Your task to perform on an android device: turn on airplane mode Image 0: 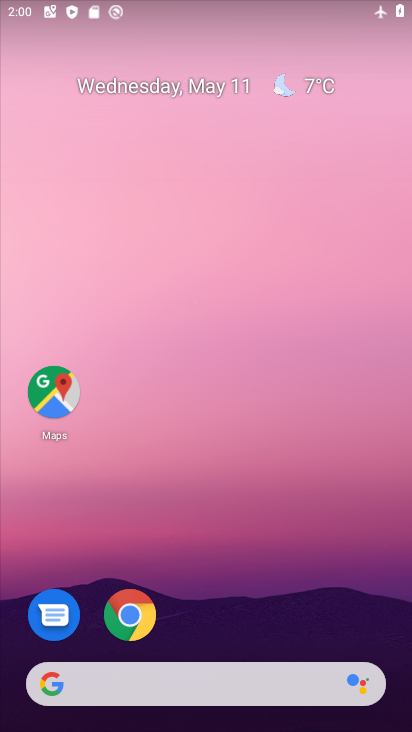
Step 0: drag from (301, 20) to (297, 581)
Your task to perform on an android device: turn on airplane mode Image 1: 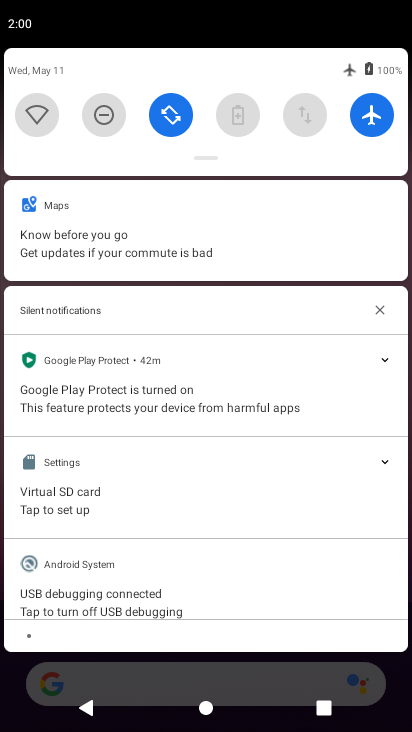
Step 1: task complete